Your task to perform on an android device: add a label to a message in the gmail app Image 0: 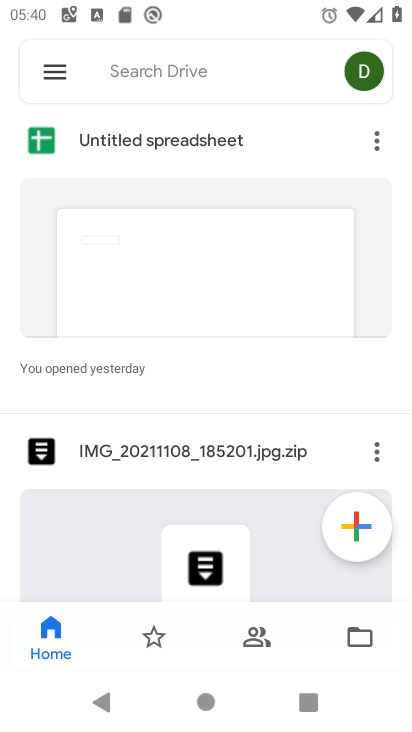
Step 0: press home button
Your task to perform on an android device: add a label to a message in the gmail app Image 1: 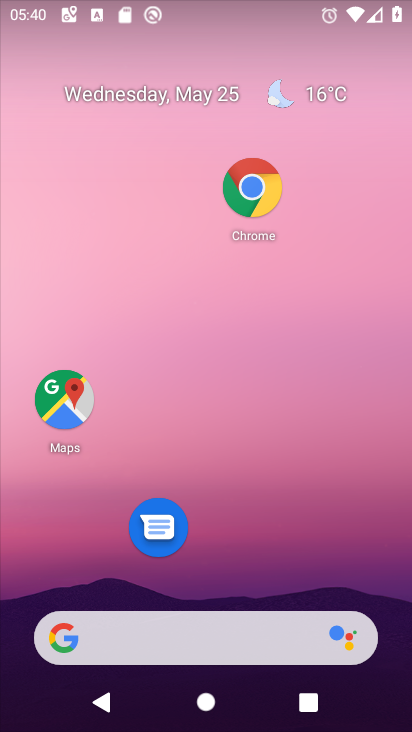
Step 1: drag from (267, 635) to (217, 97)
Your task to perform on an android device: add a label to a message in the gmail app Image 2: 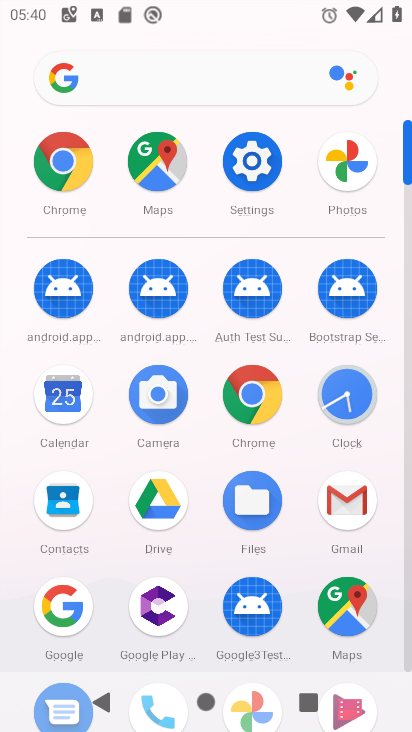
Step 2: click (357, 510)
Your task to perform on an android device: add a label to a message in the gmail app Image 3: 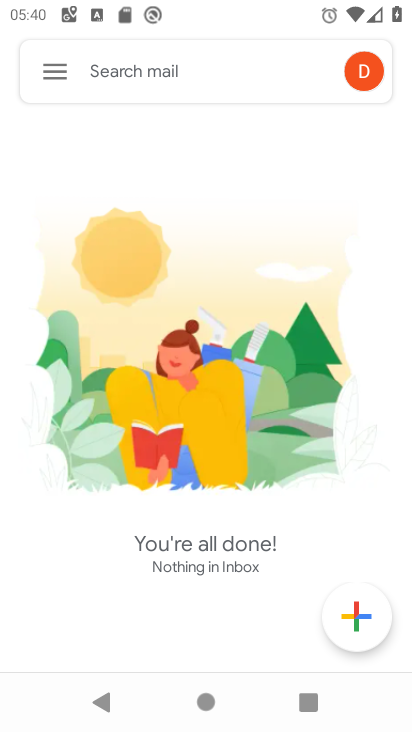
Step 3: task complete